Your task to perform on an android device: Go to Yahoo.com Image 0: 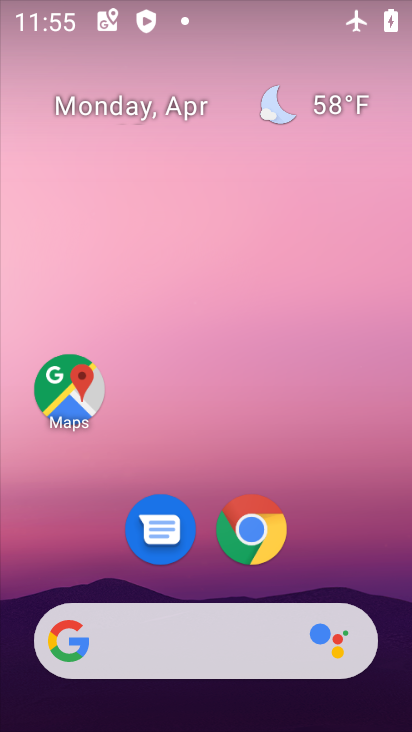
Step 0: drag from (27, 696) to (144, 89)
Your task to perform on an android device: Go to Yahoo.com Image 1: 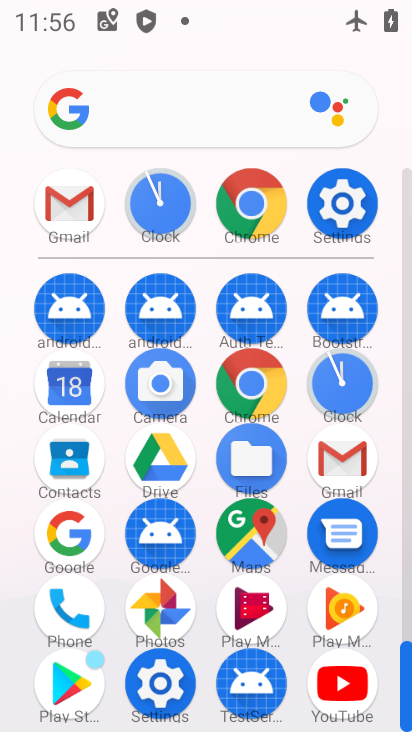
Step 1: click (222, 386)
Your task to perform on an android device: Go to Yahoo.com Image 2: 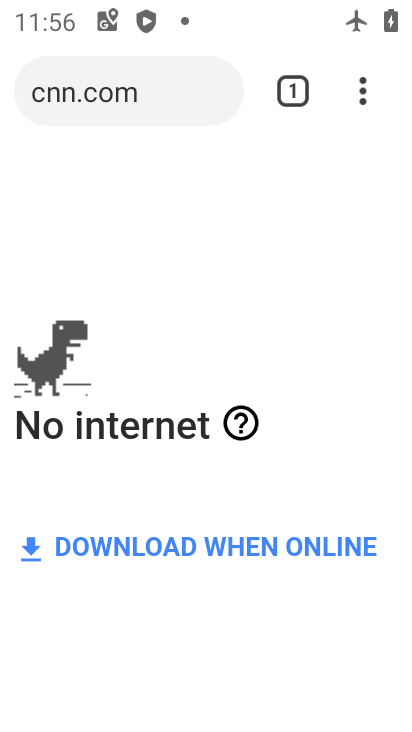
Step 2: press back button
Your task to perform on an android device: Go to Yahoo.com Image 3: 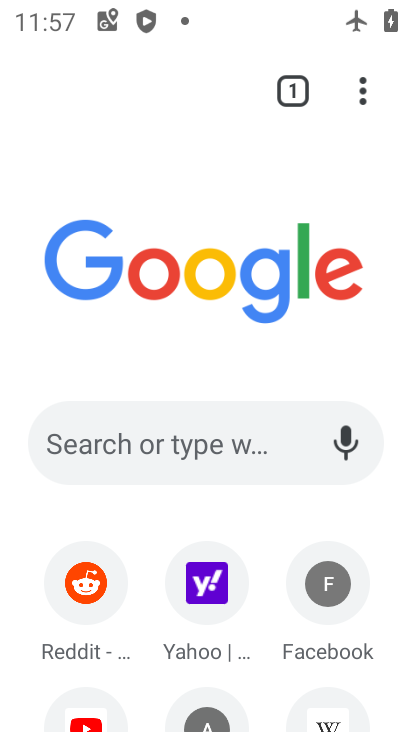
Step 3: click (182, 589)
Your task to perform on an android device: Go to Yahoo.com Image 4: 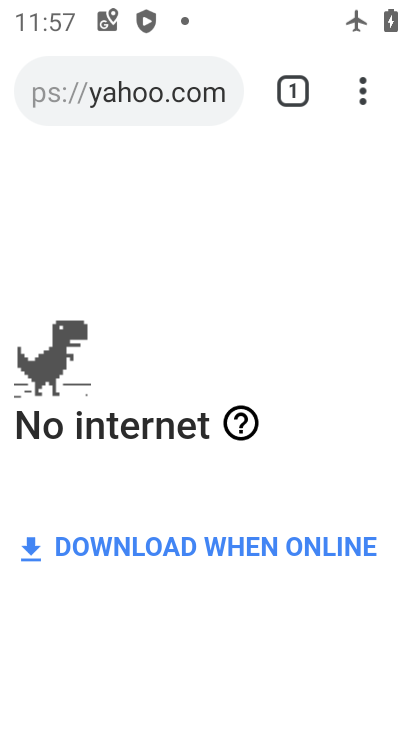
Step 4: task complete